Your task to perform on an android device: change alarm snooze length Image 0: 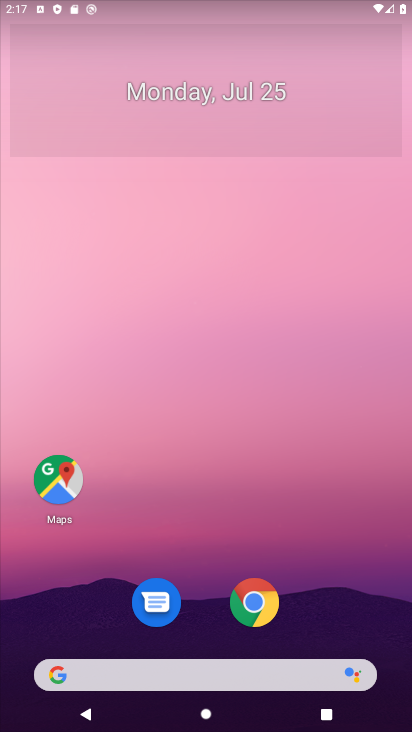
Step 0: drag from (235, 516) to (259, 207)
Your task to perform on an android device: change alarm snooze length Image 1: 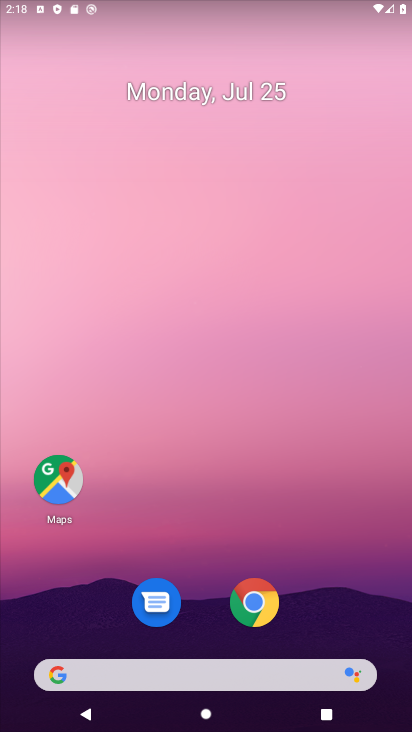
Step 1: drag from (319, 487) to (394, 16)
Your task to perform on an android device: change alarm snooze length Image 2: 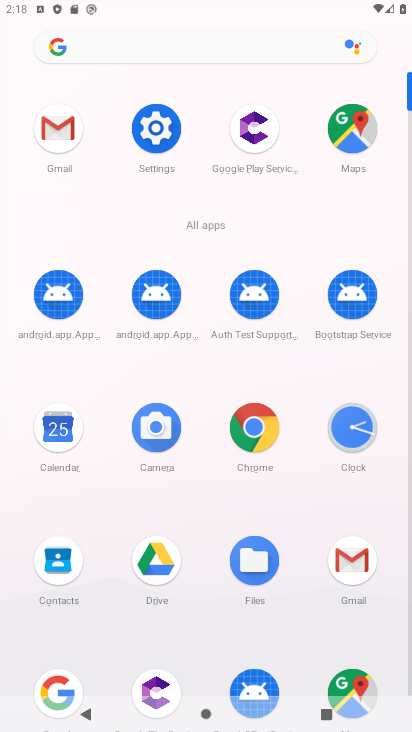
Step 2: click (348, 428)
Your task to perform on an android device: change alarm snooze length Image 3: 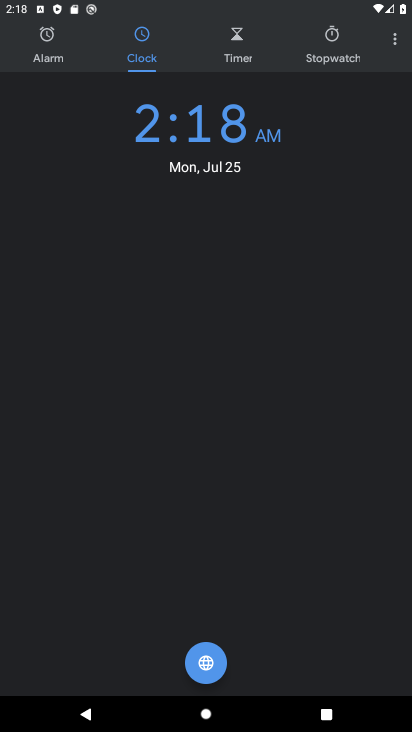
Step 3: click (45, 42)
Your task to perform on an android device: change alarm snooze length Image 4: 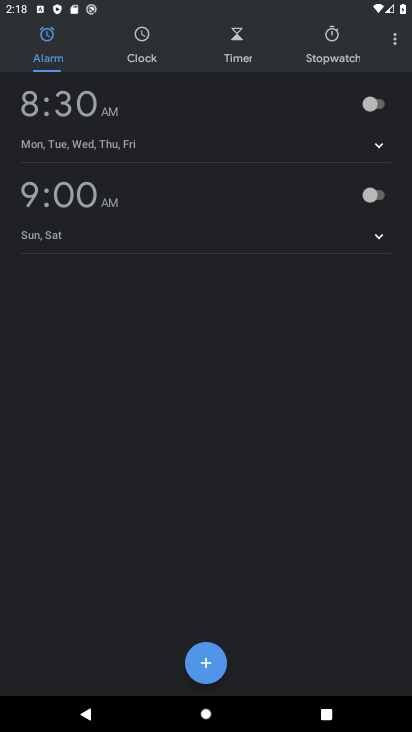
Step 4: click (399, 36)
Your task to perform on an android device: change alarm snooze length Image 5: 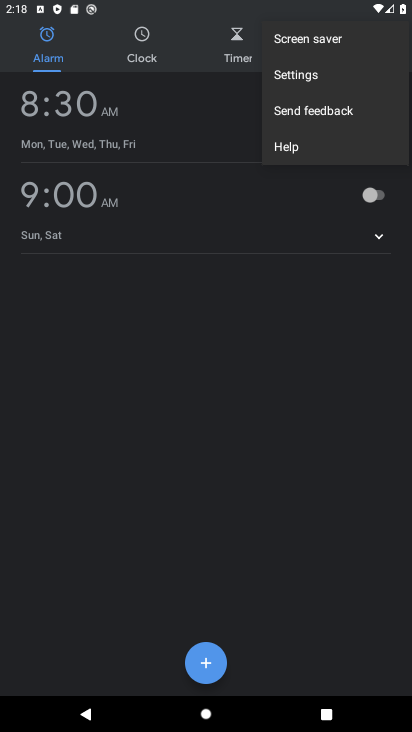
Step 5: click (306, 71)
Your task to perform on an android device: change alarm snooze length Image 6: 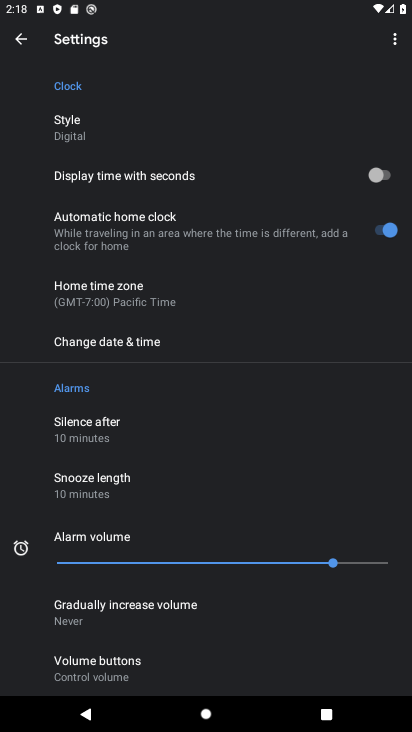
Step 6: click (94, 481)
Your task to perform on an android device: change alarm snooze length Image 7: 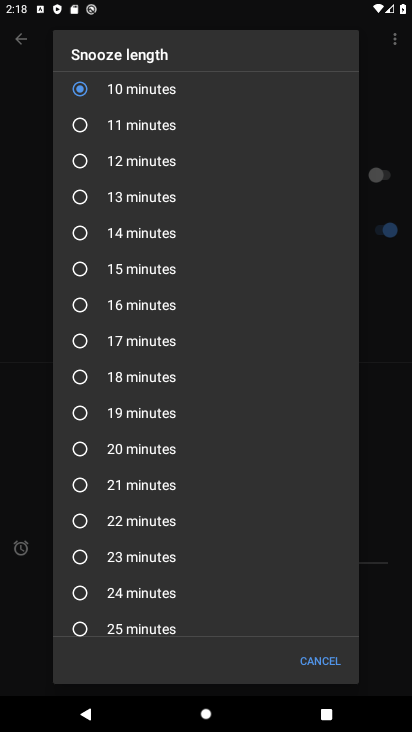
Step 7: click (117, 445)
Your task to perform on an android device: change alarm snooze length Image 8: 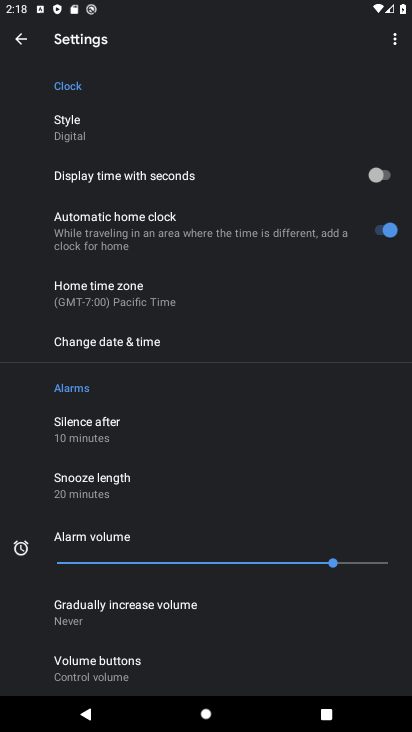
Step 8: task complete